Your task to perform on an android device: read, delete, or share a saved page in the chrome app Image 0: 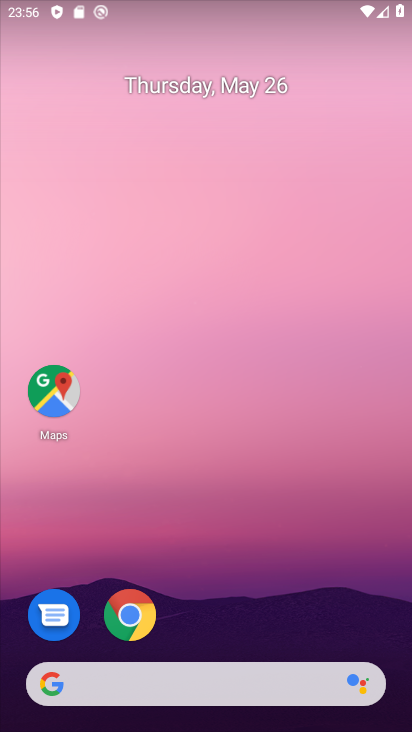
Step 0: drag from (359, 637) to (299, 117)
Your task to perform on an android device: read, delete, or share a saved page in the chrome app Image 1: 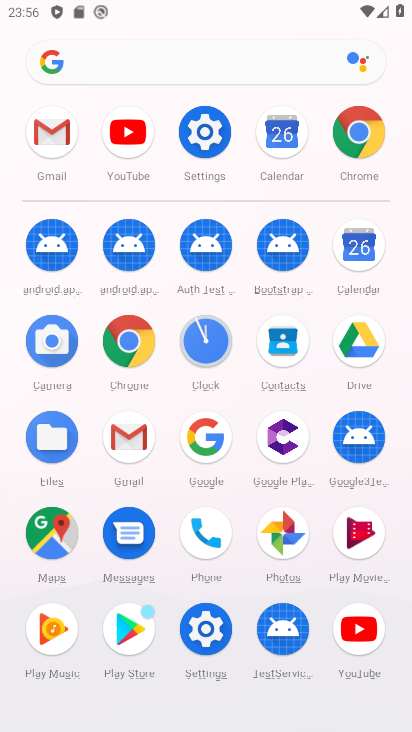
Step 1: click (369, 131)
Your task to perform on an android device: read, delete, or share a saved page in the chrome app Image 2: 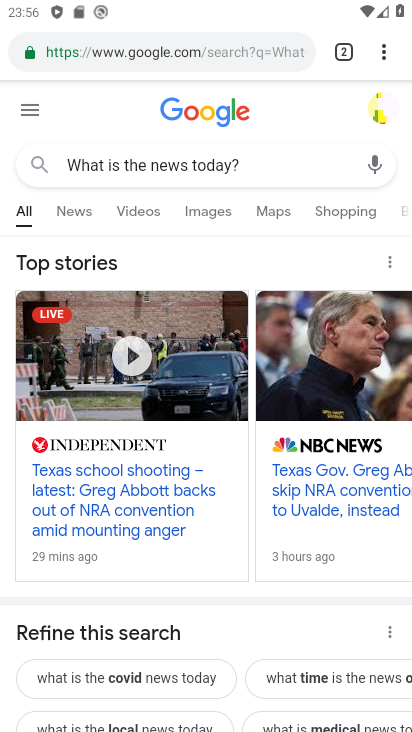
Step 2: drag from (381, 54) to (237, 348)
Your task to perform on an android device: read, delete, or share a saved page in the chrome app Image 3: 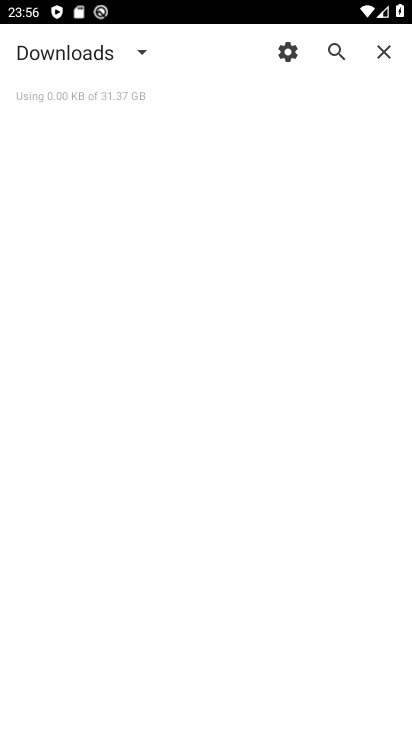
Step 3: click (116, 54)
Your task to perform on an android device: read, delete, or share a saved page in the chrome app Image 4: 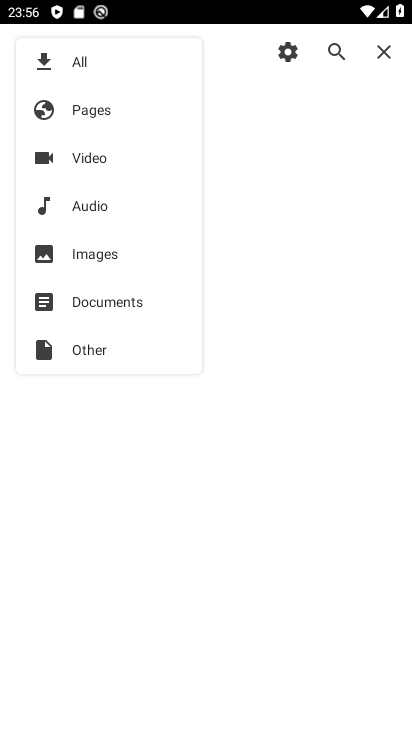
Step 4: click (89, 102)
Your task to perform on an android device: read, delete, or share a saved page in the chrome app Image 5: 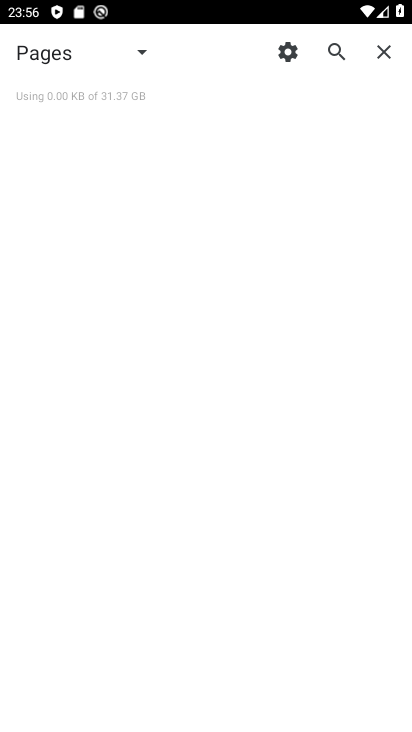
Step 5: task complete